Your task to perform on an android device: Show me the best rated 4K TV on Walmart. Image 0: 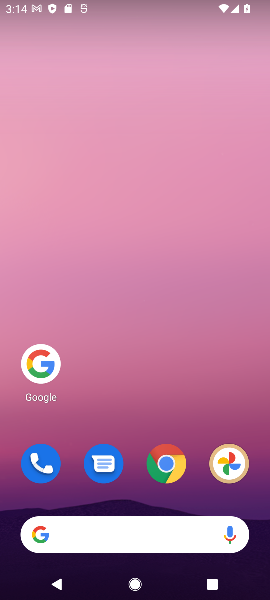
Step 0: click (35, 363)
Your task to perform on an android device: Show me the best rated 4K TV on Walmart. Image 1: 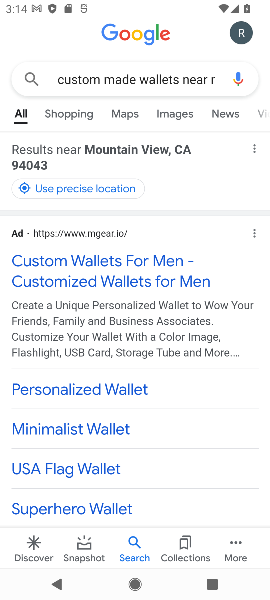
Step 1: click (204, 77)
Your task to perform on an android device: Show me the best rated 4K TV on Walmart. Image 2: 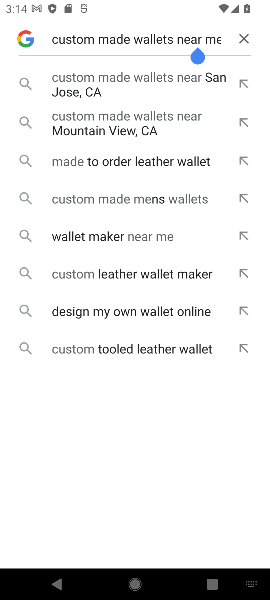
Step 2: click (249, 33)
Your task to perform on an android device: Show me the best rated 4K TV on Walmart. Image 3: 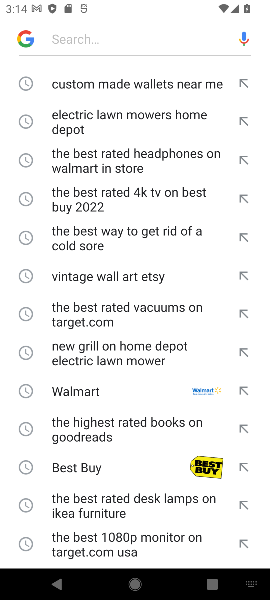
Step 3: click (113, 38)
Your task to perform on an android device: Show me the best rated 4K TV on Walmart. Image 4: 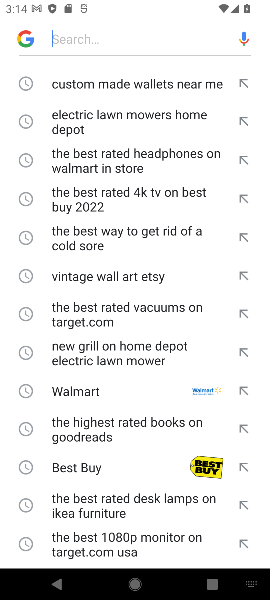
Step 4: type "the best rated 4K TV on Walmart "
Your task to perform on an android device: Show me the best rated 4K TV on Walmart. Image 5: 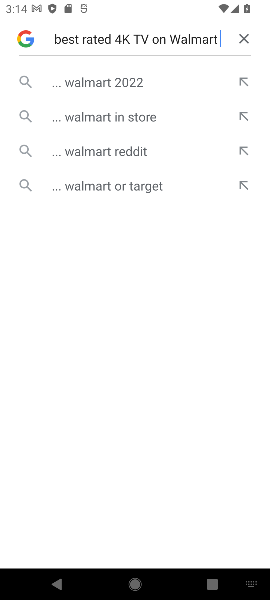
Step 5: click (144, 86)
Your task to perform on an android device: Show me the best rated 4K TV on Walmart. Image 6: 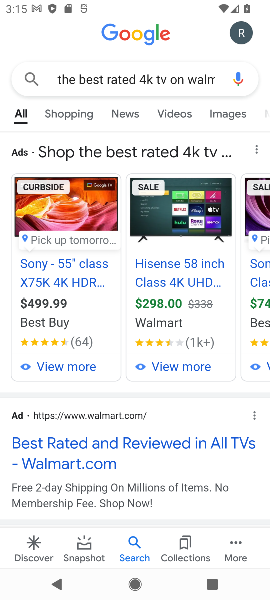
Step 6: click (94, 460)
Your task to perform on an android device: Show me the best rated 4K TV on Walmart. Image 7: 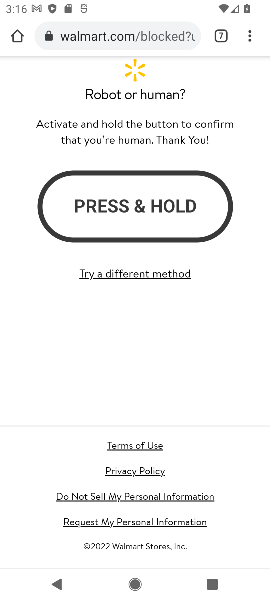
Step 7: task complete